Your task to perform on an android device: check storage Image 0: 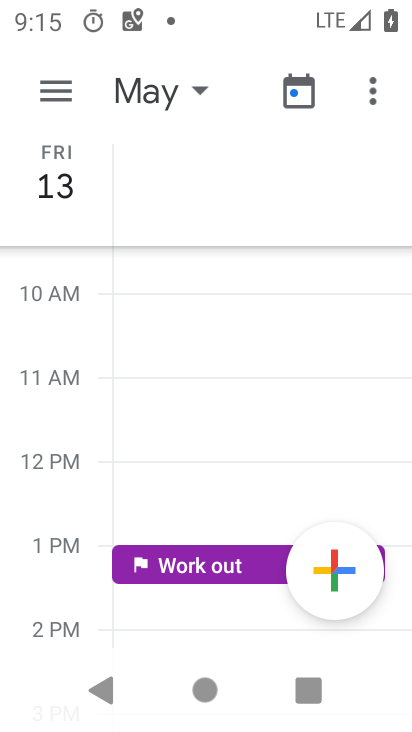
Step 0: press home button
Your task to perform on an android device: check storage Image 1: 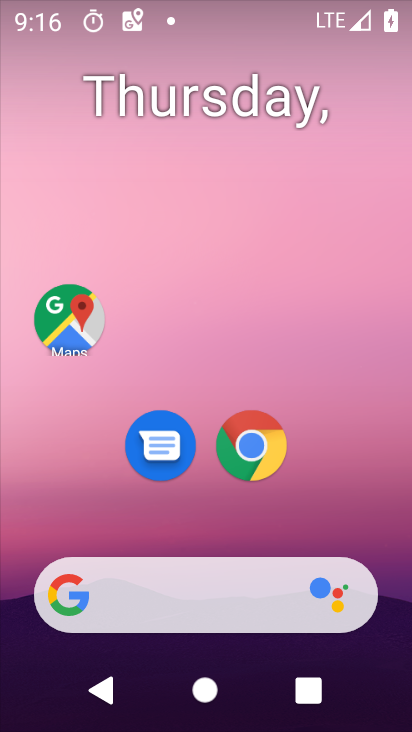
Step 1: drag from (232, 303) to (256, 208)
Your task to perform on an android device: check storage Image 2: 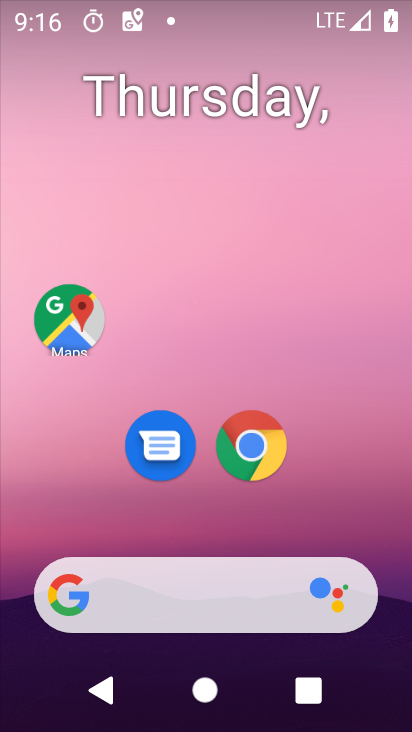
Step 2: drag from (214, 494) to (300, 7)
Your task to perform on an android device: check storage Image 3: 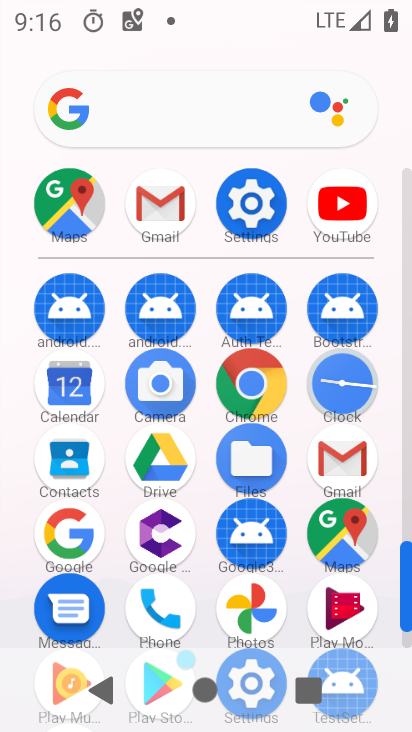
Step 3: click (251, 209)
Your task to perform on an android device: check storage Image 4: 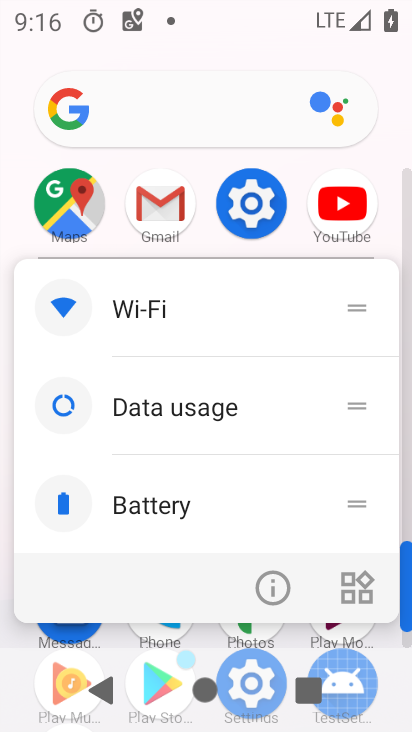
Step 4: click (261, 586)
Your task to perform on an android device: check storage Image 5: 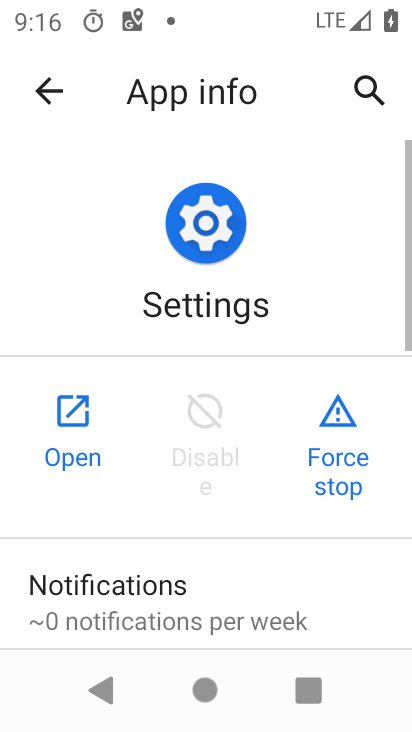
Step 5: click (77, 418)
Your task to perform on an android device: check storage Image 6: 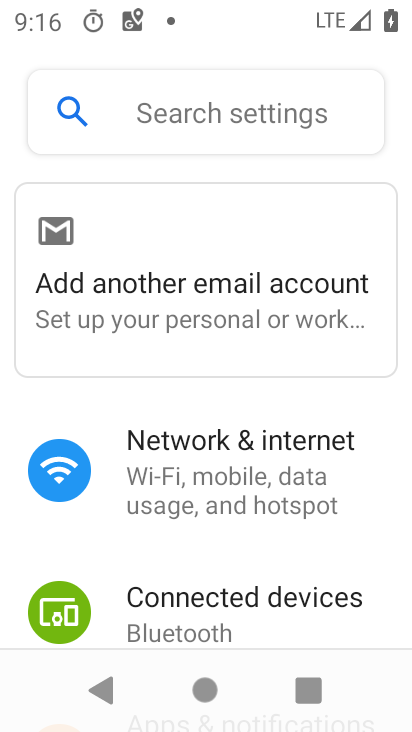
Step 6: drag from (187, 574) to (273, 164)
Your task to perform on an android device: check storage Image 7: 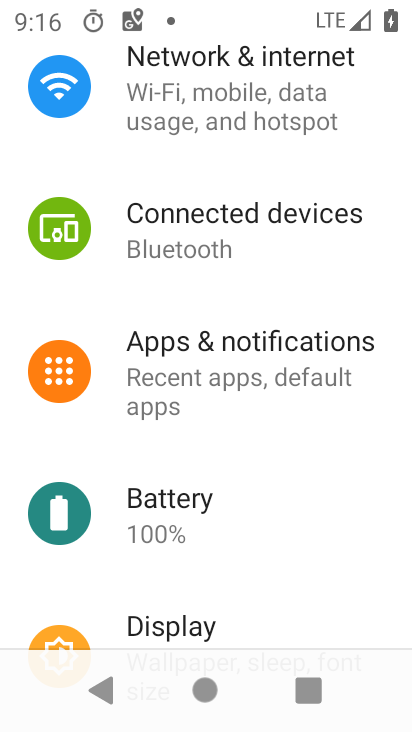
Step 7: drag from (273, 546) to (283, 77)
Your task to perform on an android device: check storage Image 8: 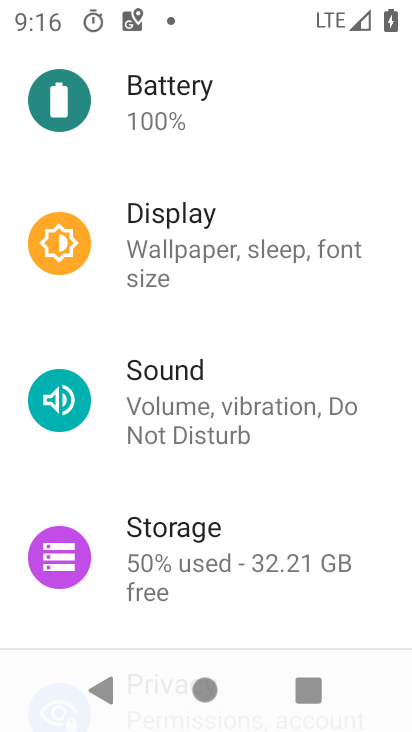
Step 8: click (204, 565)
Your task to perform on an android device: check storage Image 9: 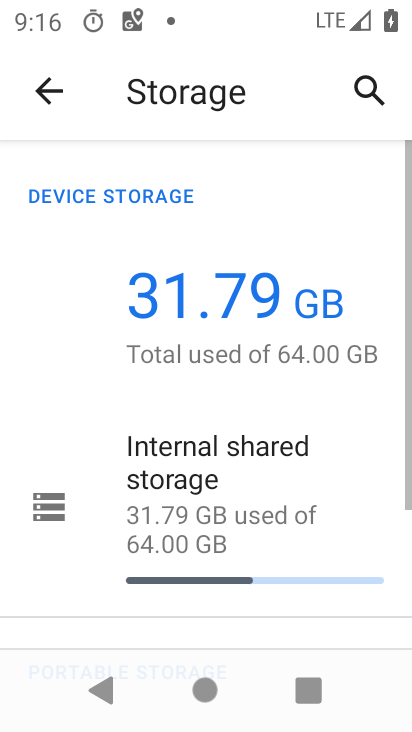
Step 9: task complete